Your task to perform on an android device: toggle translation in the chrome app Image 0: 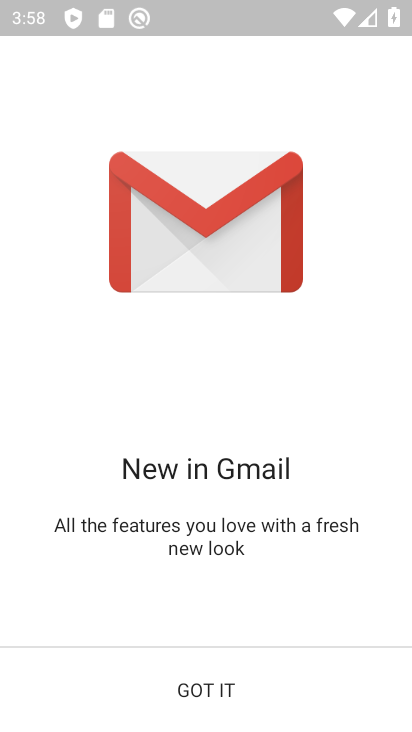
Step 0: press home button
Your task to perform on an android device: toggle translation in the chrome app Image 1: 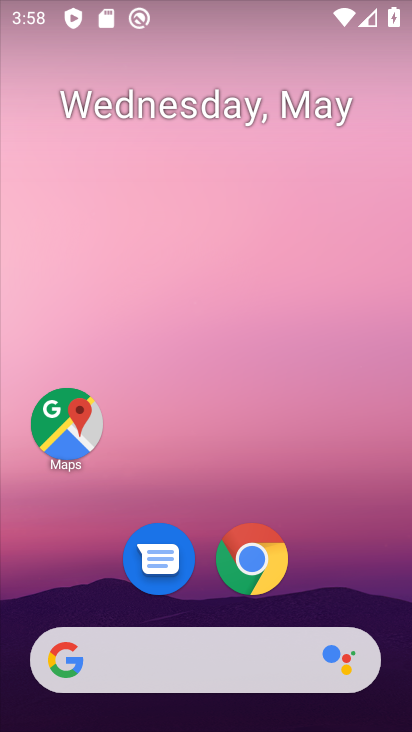
Step 1: click (253, 554)
Your task to perform on an android device: toggle translation in the chrome app Image 2: 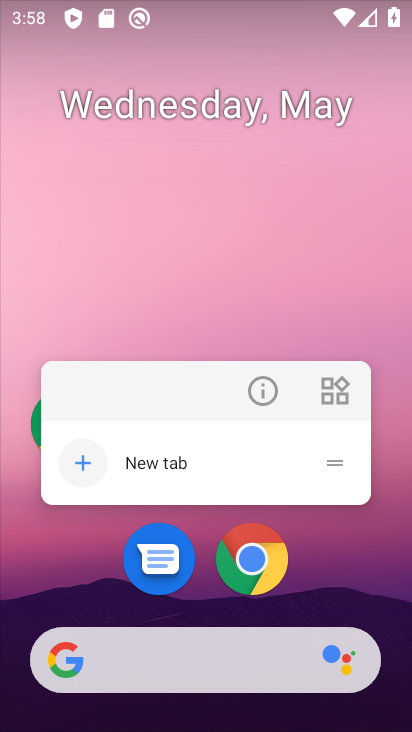
Step 2: click (265, 564)
Your task to perform on an android device: toggle translation in the chrome app Image 3: 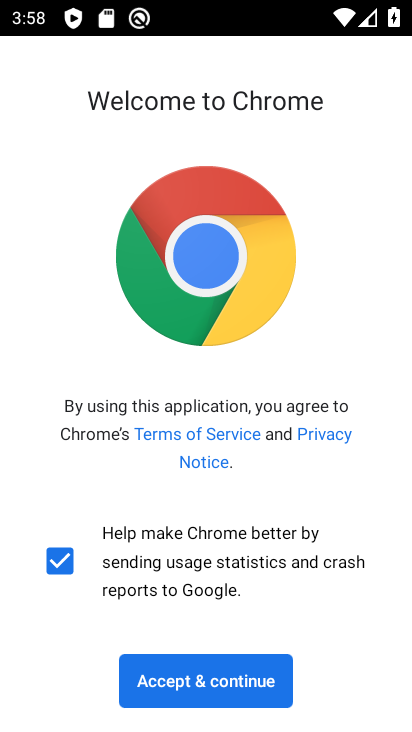
Step 3: click (254, 664)
Your task to perform on an android device: toggle translation in the chrome app Image 4: 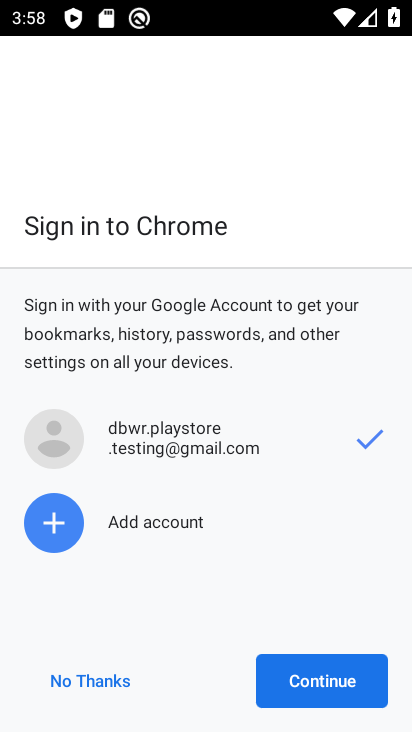
Step 4: click (381, 676)
Your task to perform on an android device: toggle translation in the chrome app Image 5: 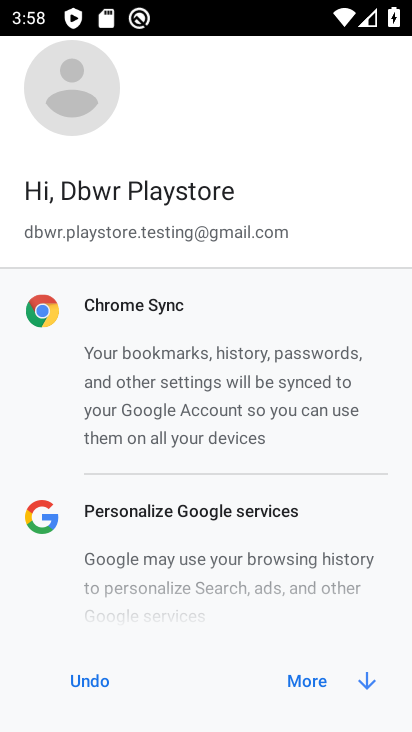
Step 5: click (373, 679)
Your task to perform on an android device: toggle translation in the chrome app Image 6: 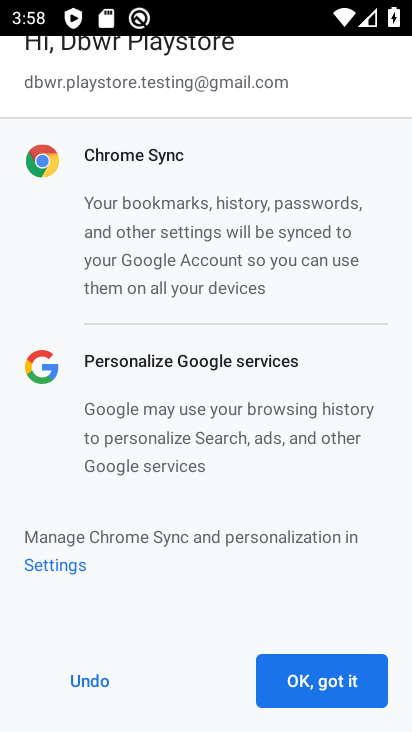
Step 6: click (367, 679)
Your task to perform on an android device: toggle translation in the chrome app Image 7: 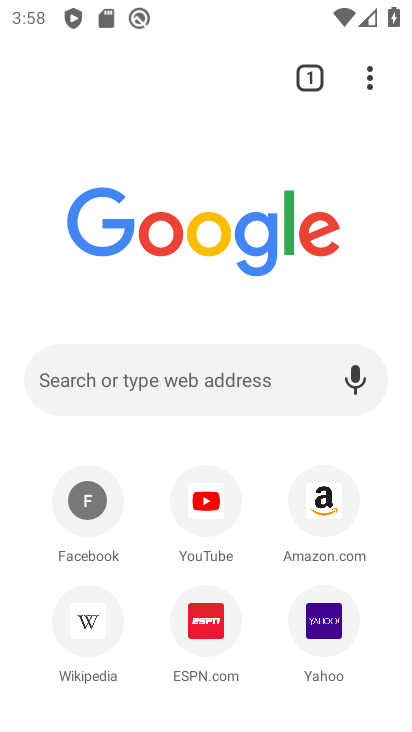
Step 7: click (372, 73)
Your task to perform on an android device: toggle translation in the chrome app Image 8: 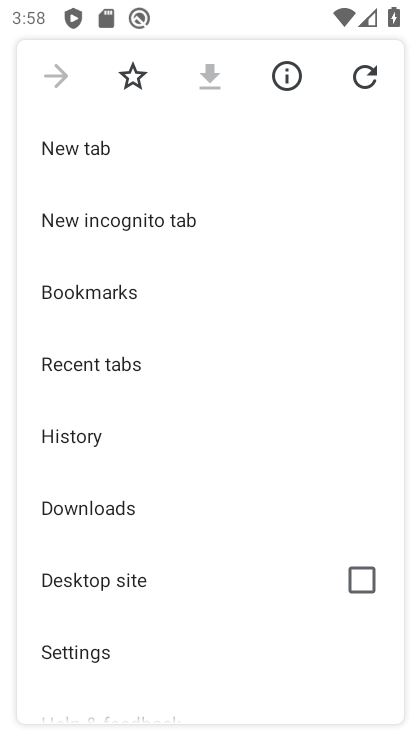
Step 8: click (212, 652)
Your task to perform on an android device: toggle translation in the chrome app Image 9: 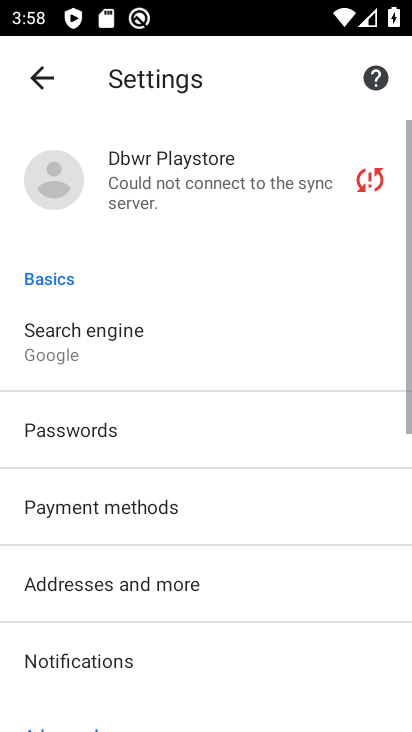
Step 9: drag from (250, 582) to (231, 160)
Your task to perform on an android device: toggle translation in the chrome app Image 10: 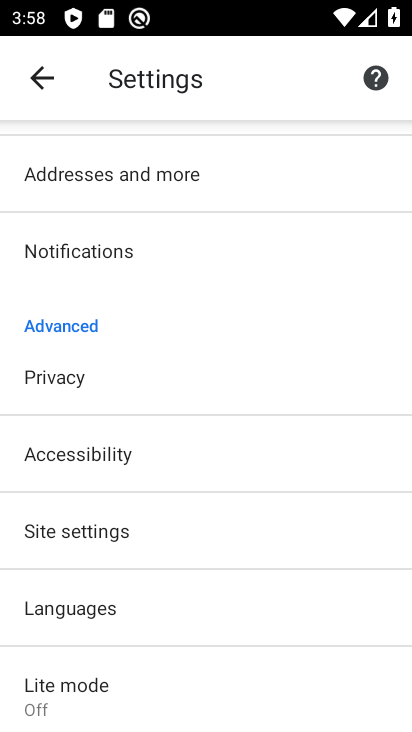
Step 10: click (138, 608)
Your task to perform on an android device: toggle translation in the chrome app Image 11: 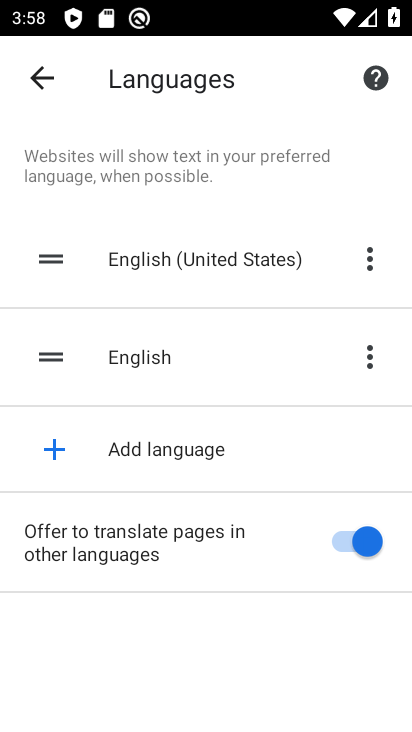
Step 11: click (362, 549)
Your task to perform on an android device: toggle translation in the chrome app Image 12: 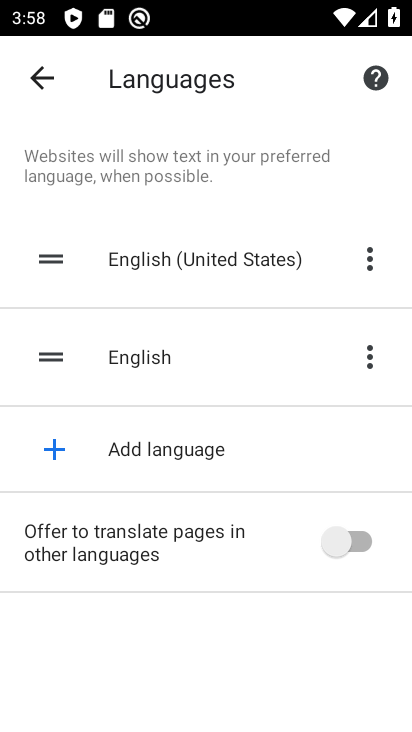
Step 12: task complete